Your task to perform on an android device: open app "Booking.com: Hotels and more" Image 0: 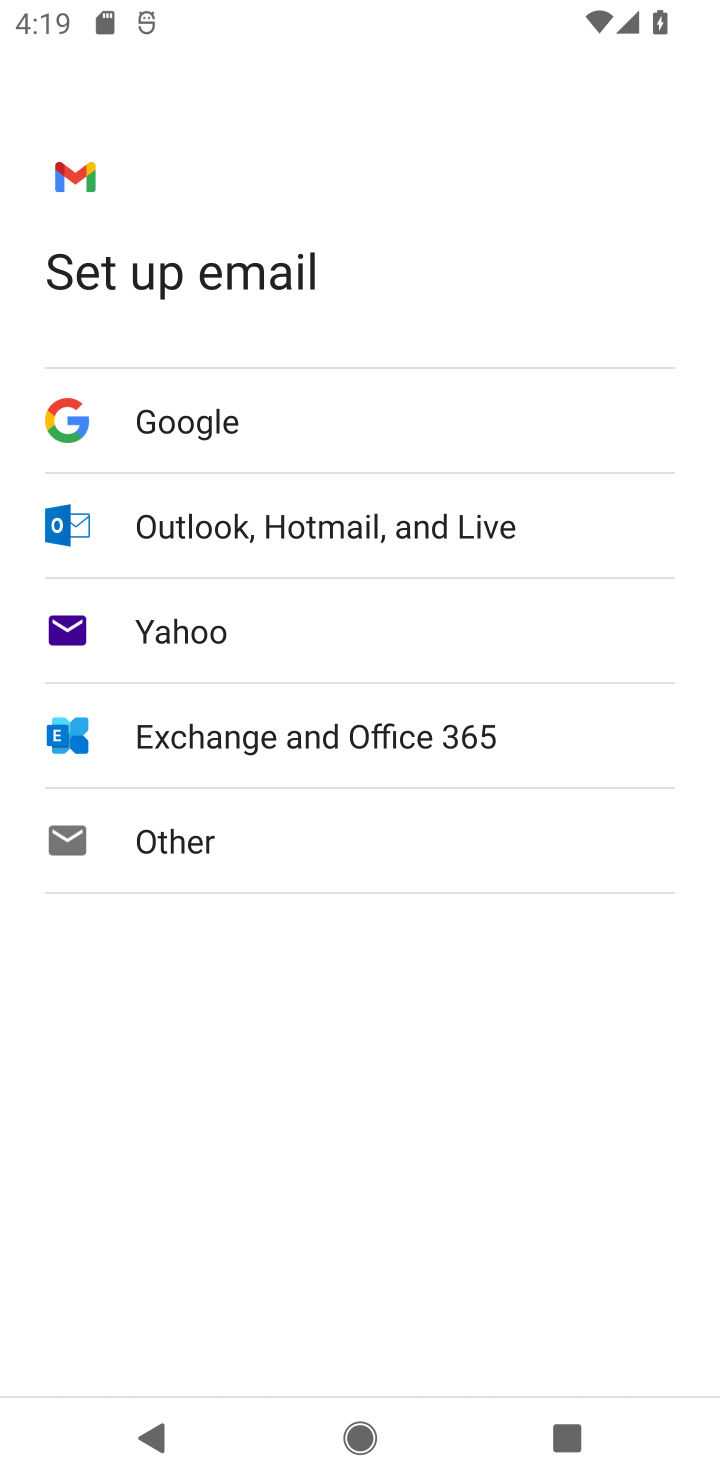
Step 0: press home button
Your task to perform on an android device: open app "Booking.com: Hotels and more" Image 1: 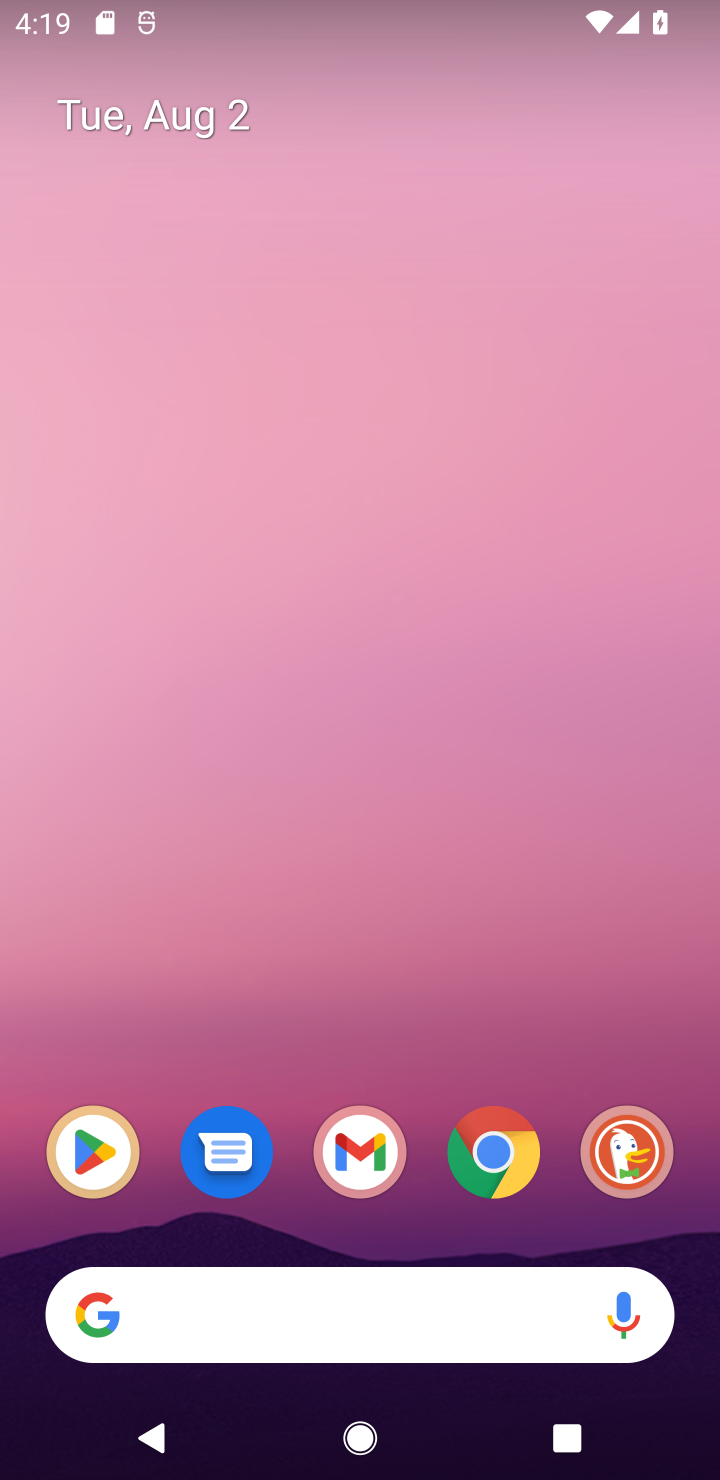
Step 1: click (108, 1124)
Your task to perform on an android device: open app "Booking.com: Hotels and more" Image 2: 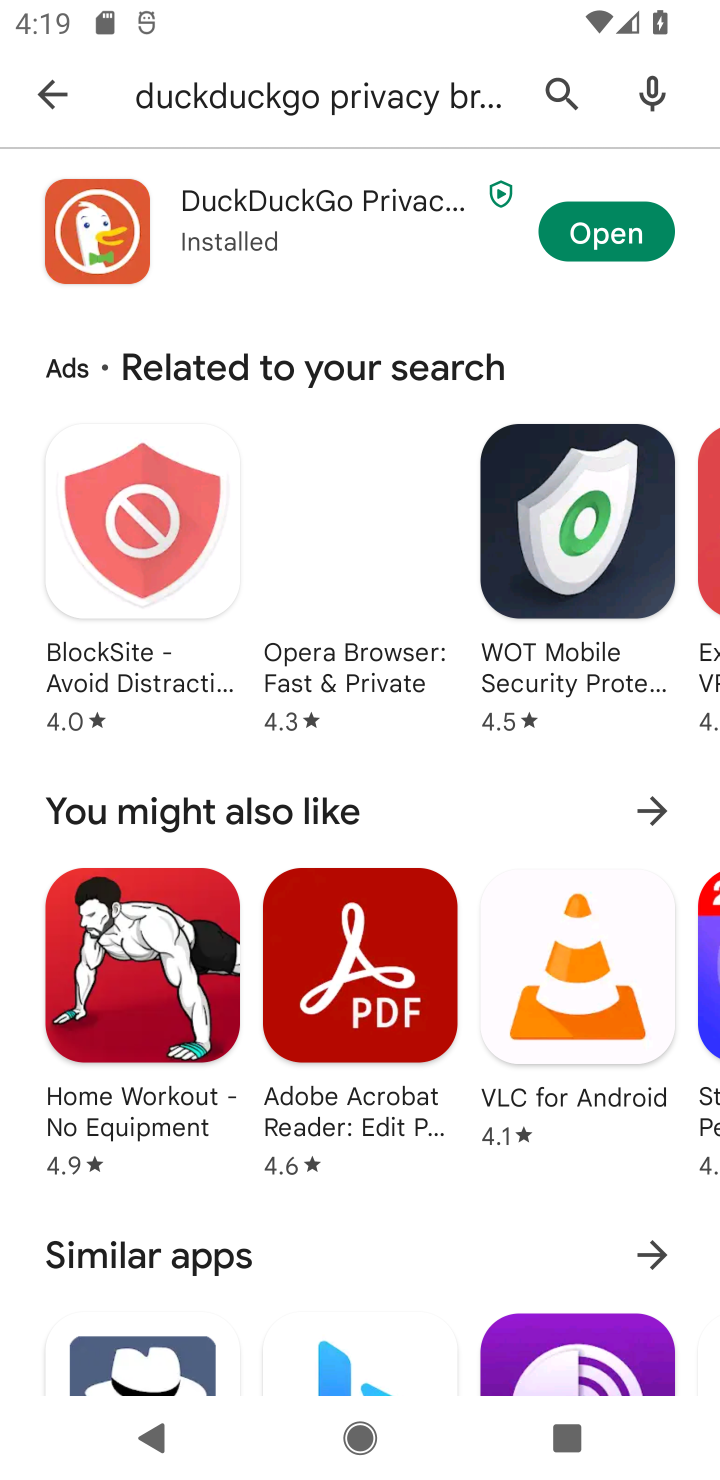
Step 2: click (38, 94)
Your task to perform on an android device: open app "Booking.com: Hotels and more" Image 3: 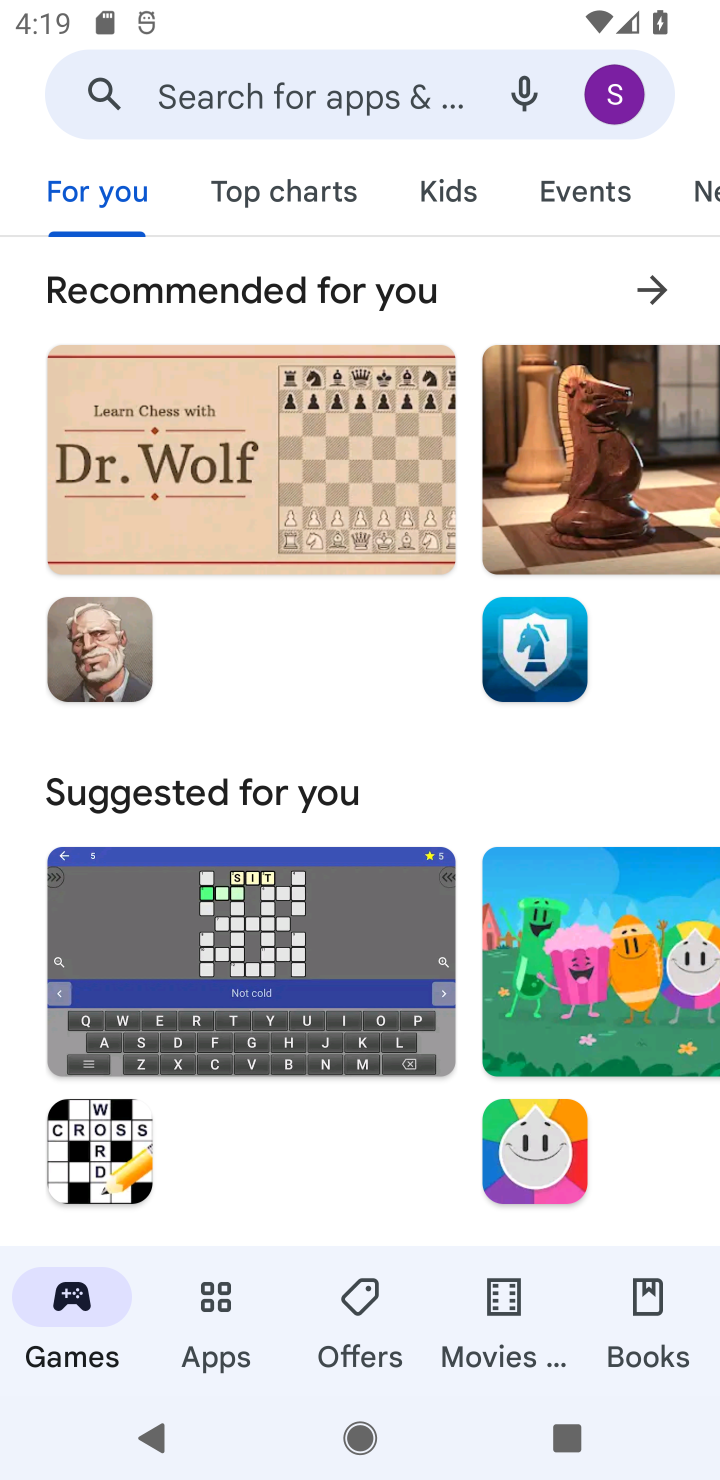
Step 3: click (264, 98)
Your task to perform on an android device: open app "Booking.com: Hotels and more" Image 4: 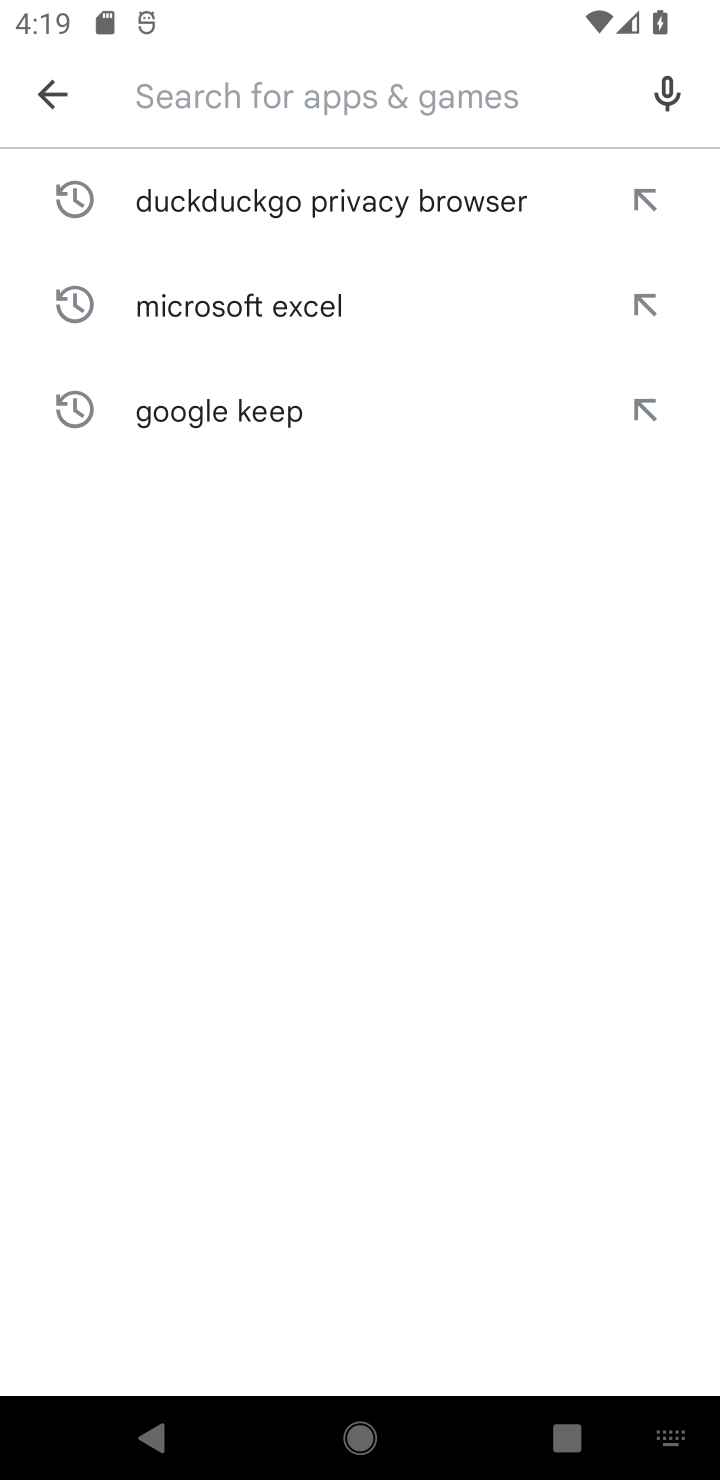
Step 4: type "Booking.com: Hotels and more"
Your task to perform on an android device: open app "Booking.com: Hotels and more" Image 5: 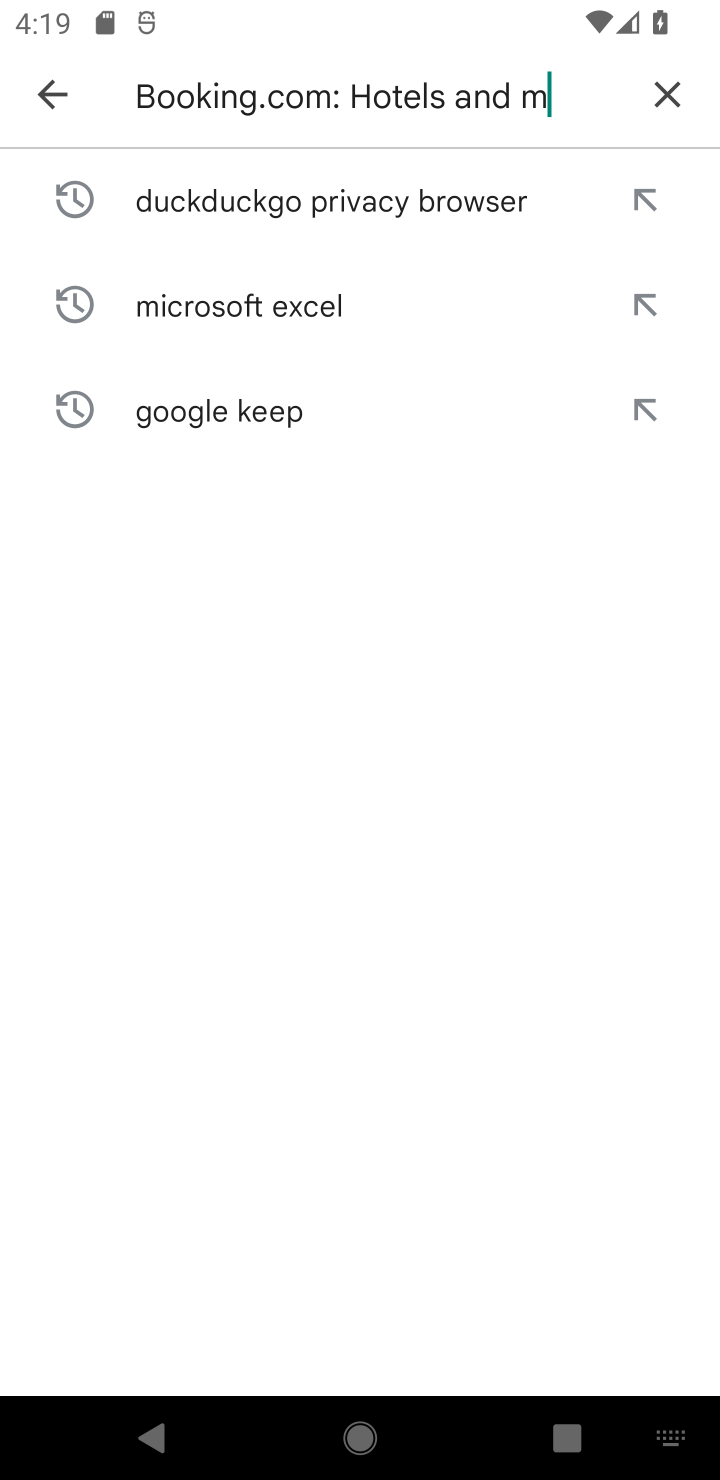
Step 5: type ""
Your task to perform on an android device: open app "Booking.com: Hotels and more" Image 6: 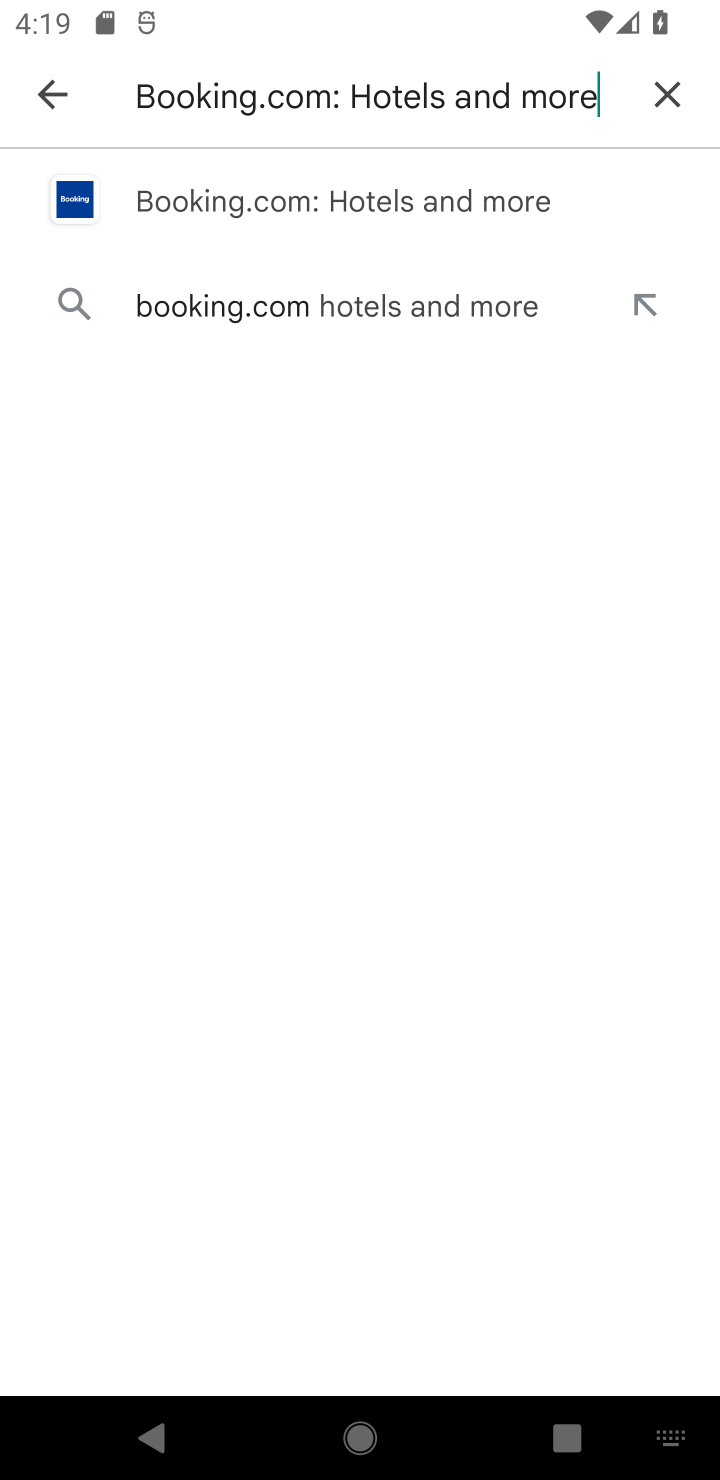
Step 6: click (309, 217)
Your task to perform on an android device: open app "Booking.com: Hotels and more" Image 7: 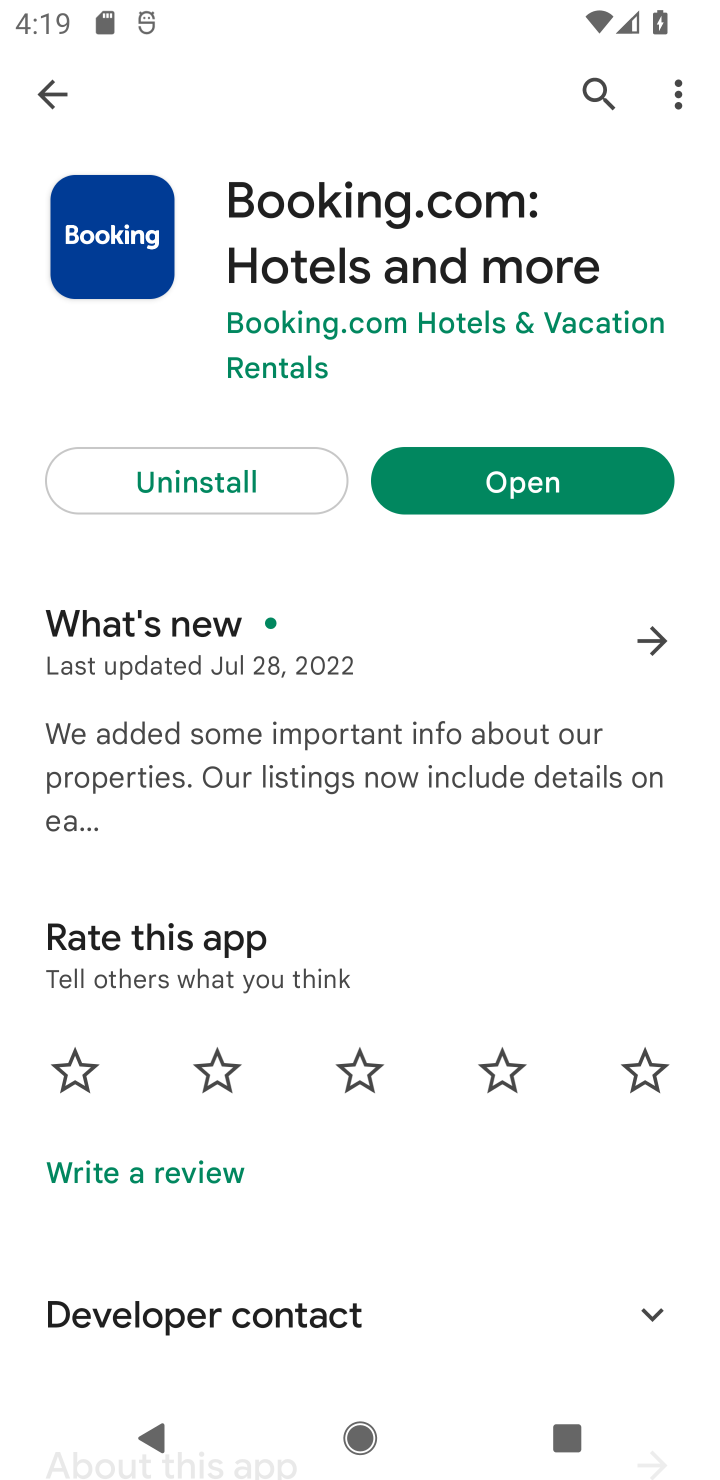
Step 7: click (516, 464)
Your task to perform on an android device: open app "Booking.com: Hotels and more" Image 8: 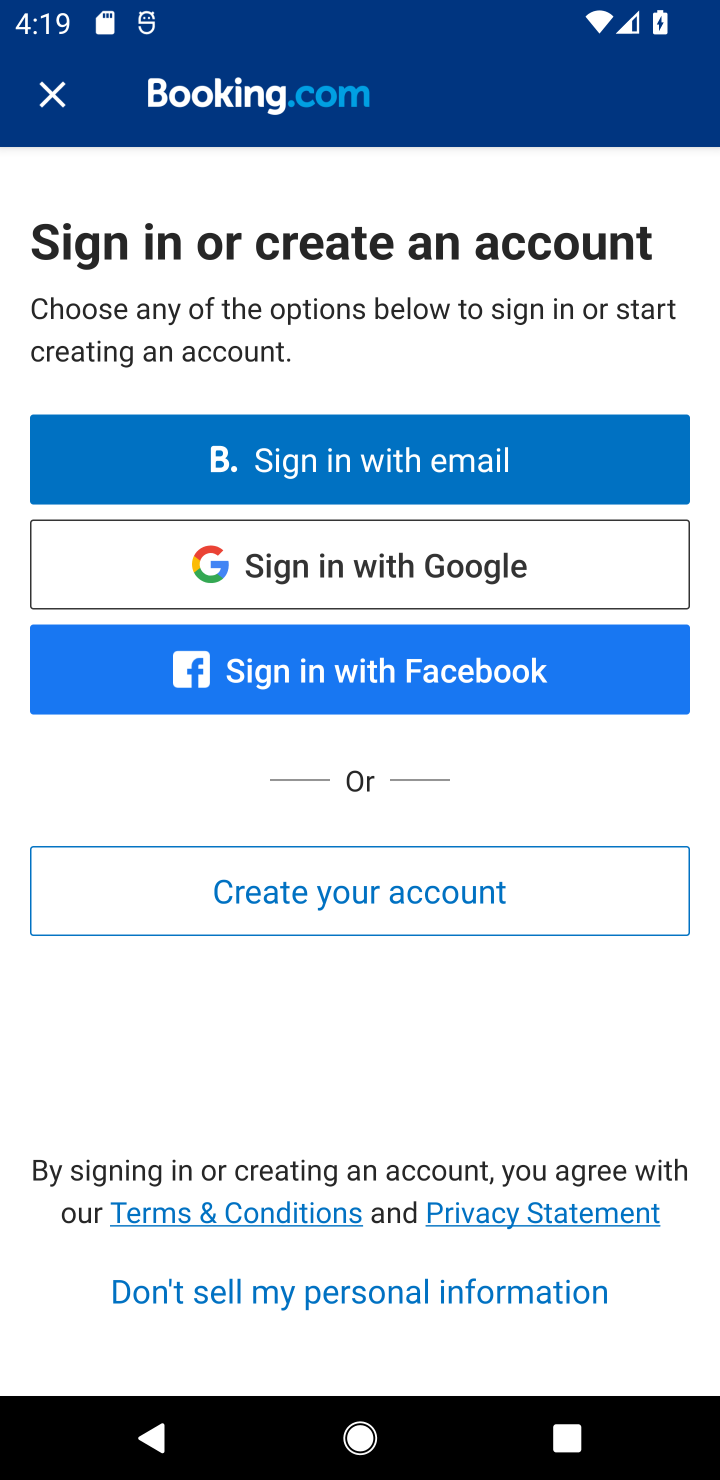
Step 8: task complete